Your task to perform on an android device: set the timer Image 0: 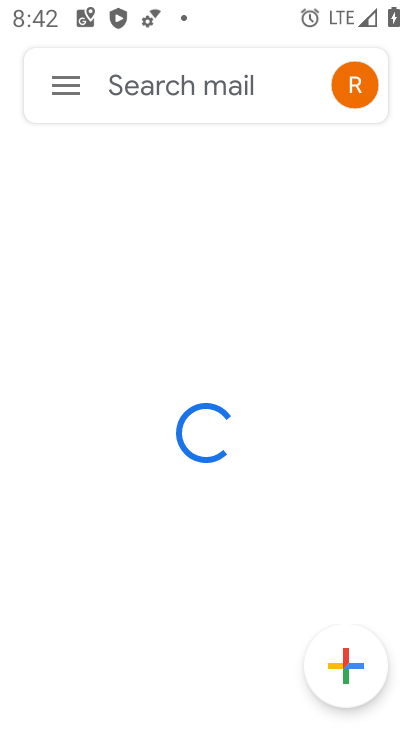
Step 0: press home button
Your task to perform on an android device: set the timer Image 1: 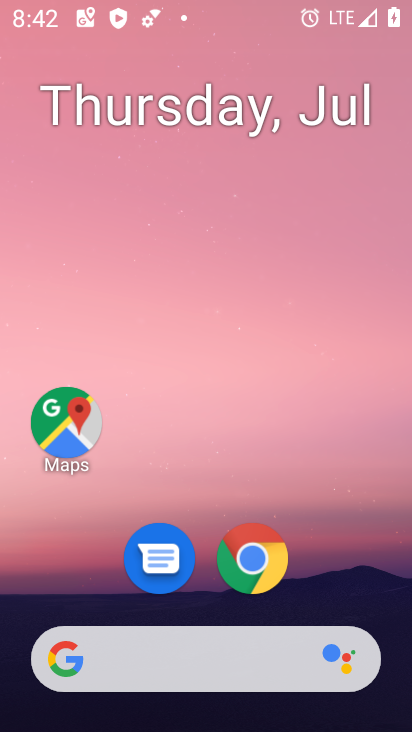
Step 1: drag from (224, 661) to (272, 133)
Your task to perform on an android device: set the timer Image 2: 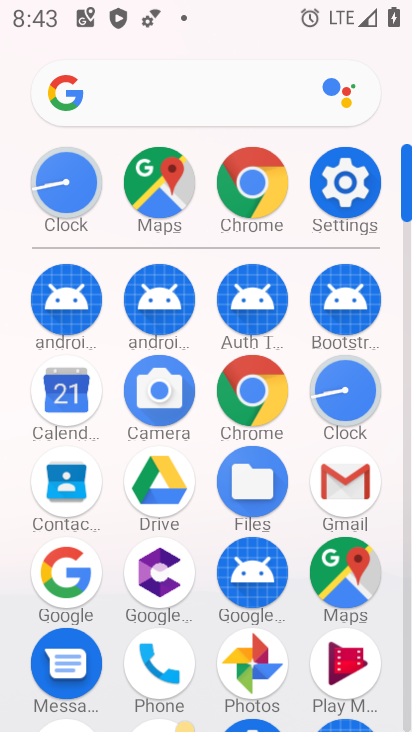
Step 2: click (336, 389)
Your task to perform on an android device: set the timer Image 3: 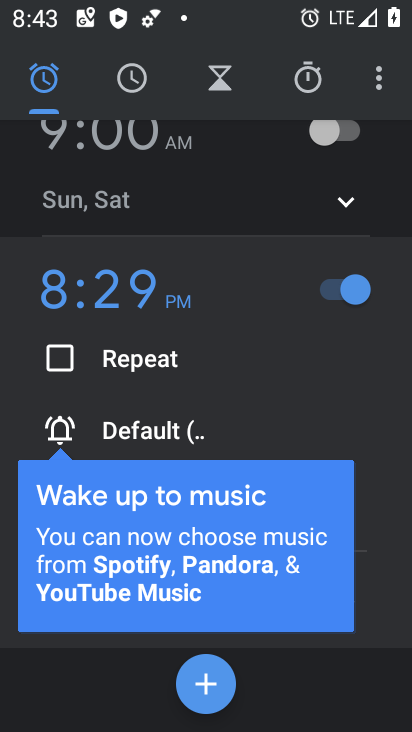
Step 3: click (221, 85)
Your task to perform on an android device: set the timer Image 4: 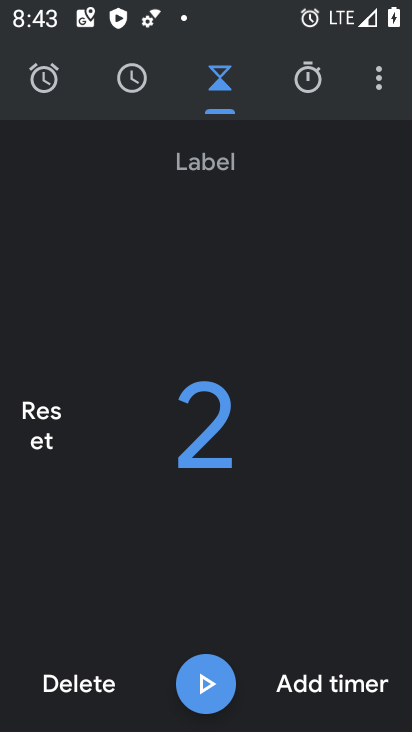
Step 4: click (197, 692)
Your task to perform on an android device: set the timer Image 5: 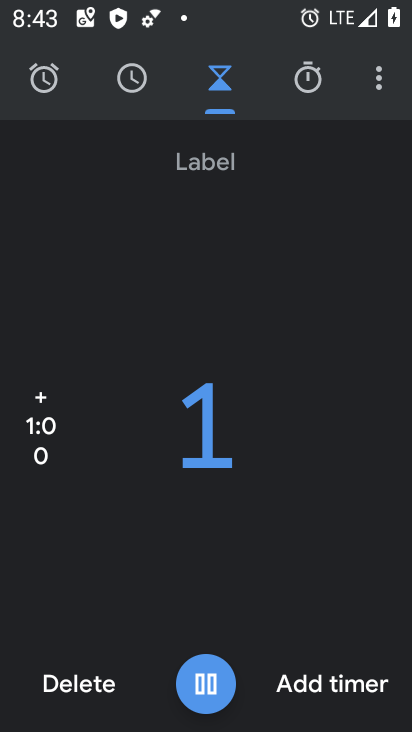
Step 5: task complete